Your task to perform on an android device: Open the stopwatch Image 0: 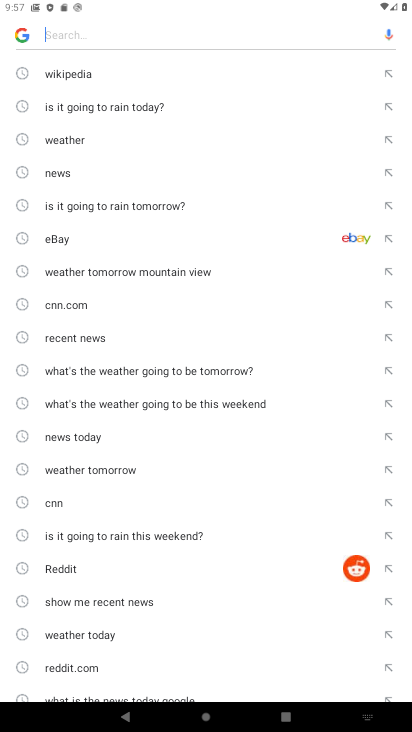
Step 0: press home button
Your task to perform on an android device: Open the stopwatch Image 1: 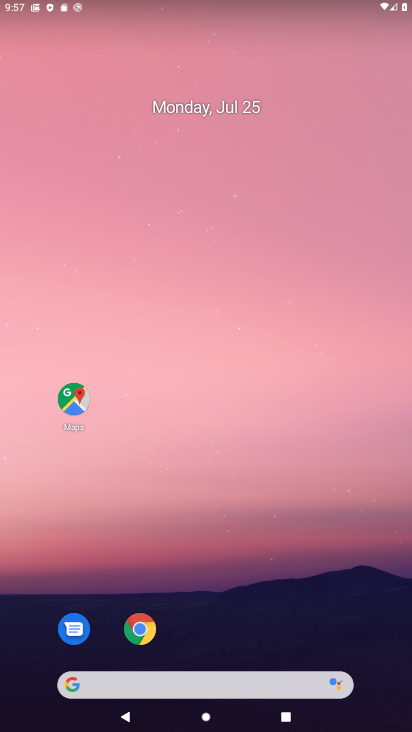
Step 1: drag from (223, 661) to (240, 12)
Your task to perform on an android device: Open the stopwatch Image 2: 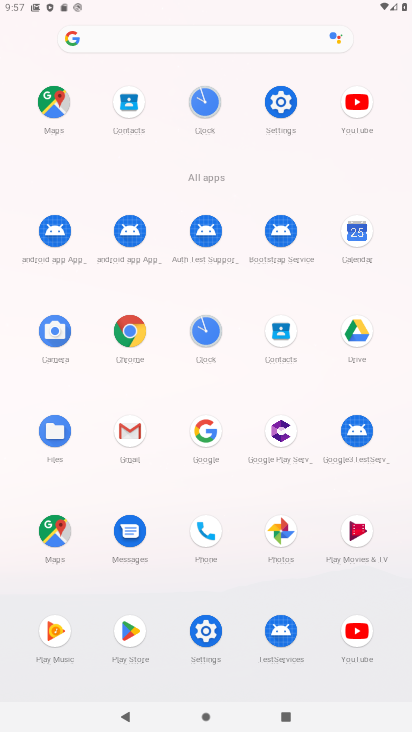
Step 2: click (201, 334)
Your task to perform on an android device: Open the stopwatch Image 3: 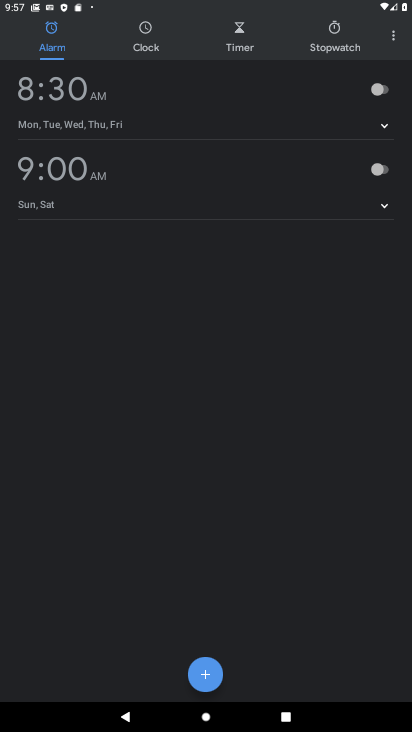
Step 3: click (331, 32)
Your task to perform on an android device: Open the stopwatch Image 4: 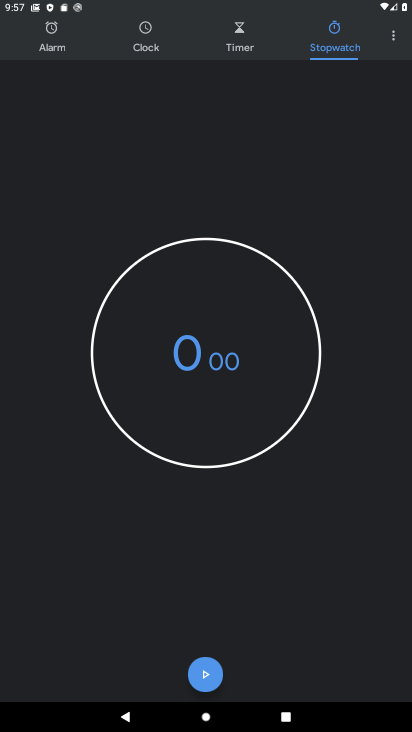
Step 4: task complete